Your task to perform on an android device: delete a single message in the gmail app Image 0: 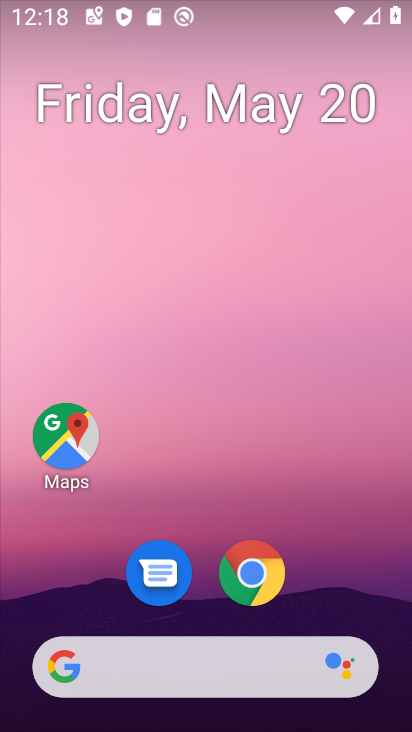
Step 0: drag from (339, 562) to (351, 111)
Your task to perform on an android device: delete a single message in the gmail app Image 1: 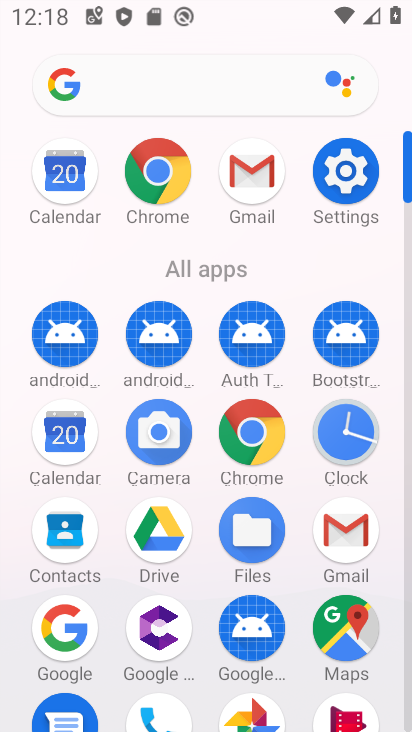
Step 1: click (257, 175)
Your task to perform on an android device: delete a single message in the gmail app Image 2: 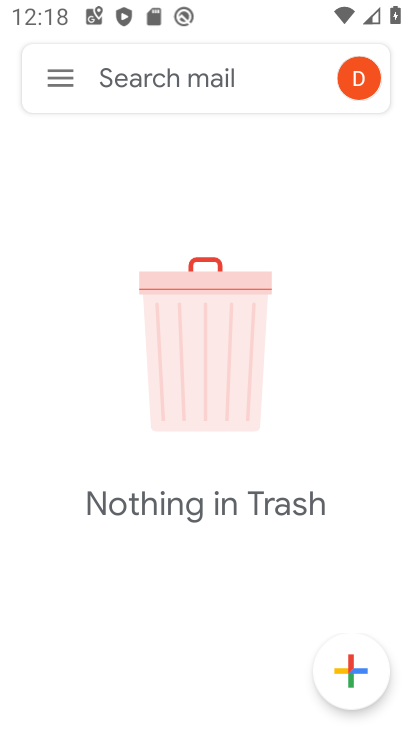
Step 2: click (58, 77)
Your task to perform on an android device: delete a single message in the gmail app Image 3: 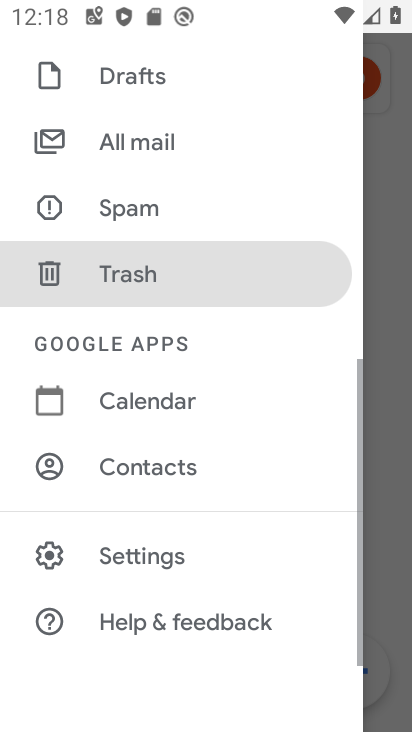
Step 3: click (140, 139)
Your task to perform on an android device: delete a single message in the gmail app Image 4: 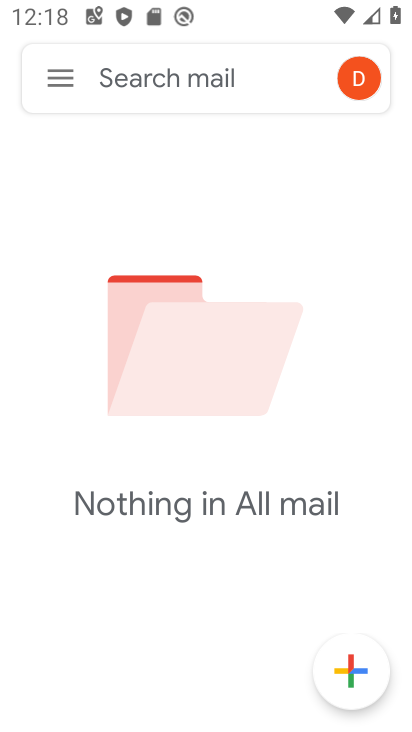
Step 4: task complete